Your task to perform on an android device: remove spam from my inbox in the gmail app Image 0: 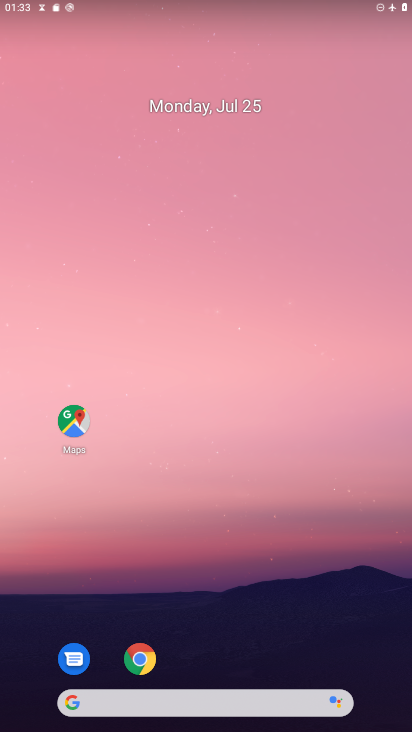
Step 0: drag from (273, 690) to (272, 199)
Your task to perform on an android device: remove spam from my inbox in the gmail app Image 1: 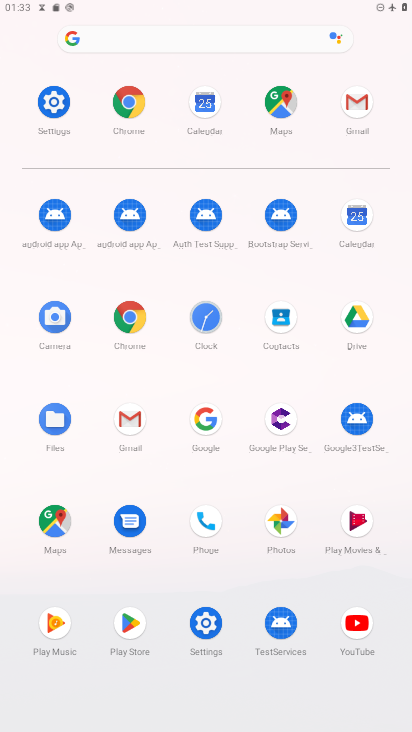
Step 1: click (351, 107)
Your task to perform on an android device: remove spam from my inbox in the gmail app Image 2: 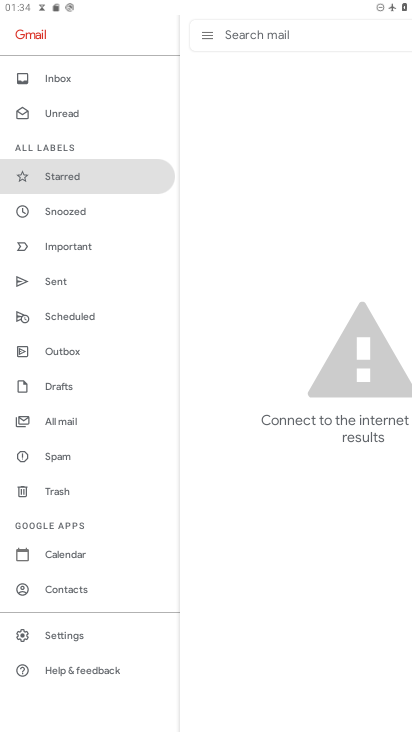
Step 2: click (33, 467)
Your task to perform on an android device: remove spam from my inbox in the gmail app Image 3: 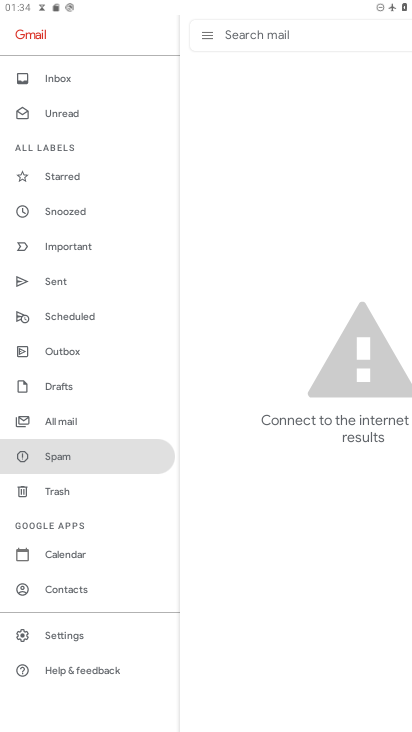
Step 3: task complete